Your task to perform on an android device: turn on airplane mode Image 0: 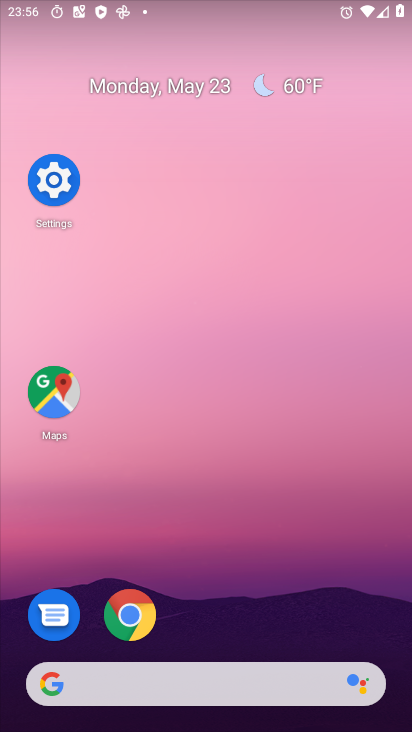
Step 0: drag from (203, 604) to (258, 34)
Your task to perform on an android device: turn on airplane mode Image 1: 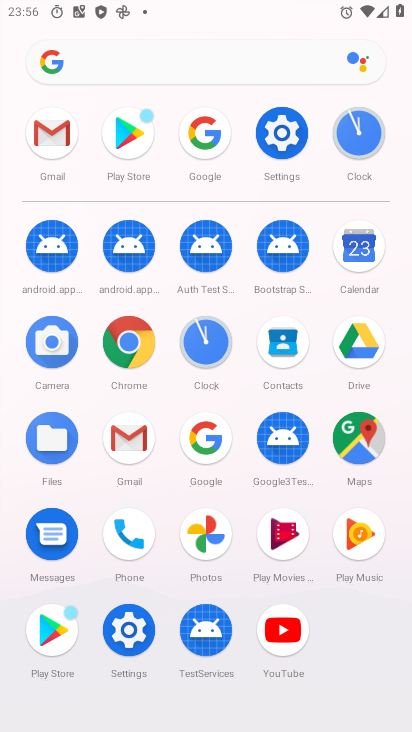
Step 1: click (277, 136)
Your task to perform on an android device: turn on airplane mode Image 2: 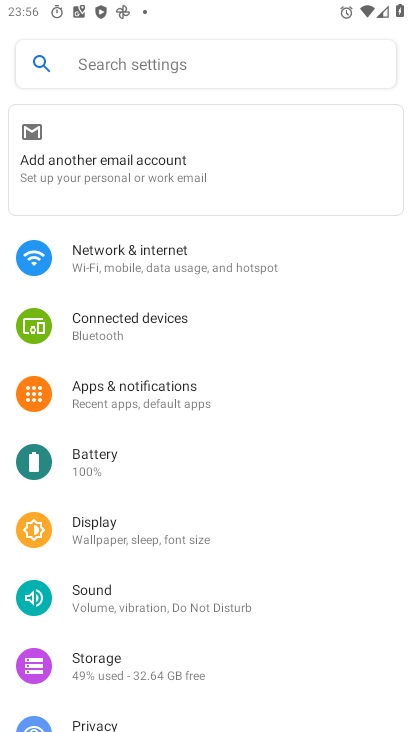
Step 2: click (140, 263)
Your task to perform on an android device: turn on airplane mode Image 3: 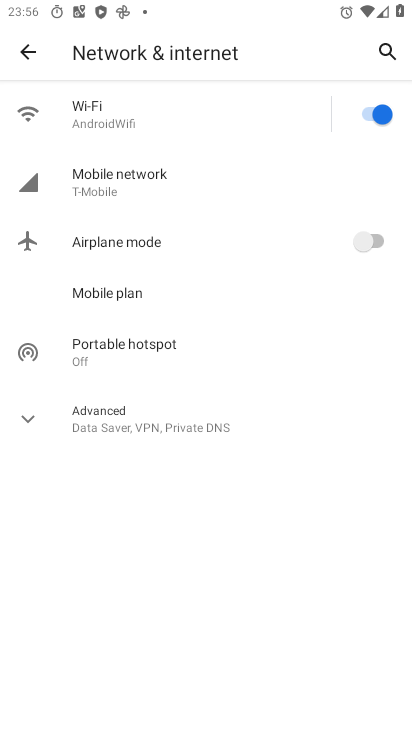
Step 3: click (363, 243)
Your task to perform on an android device: turn on airplane mode Image 4: 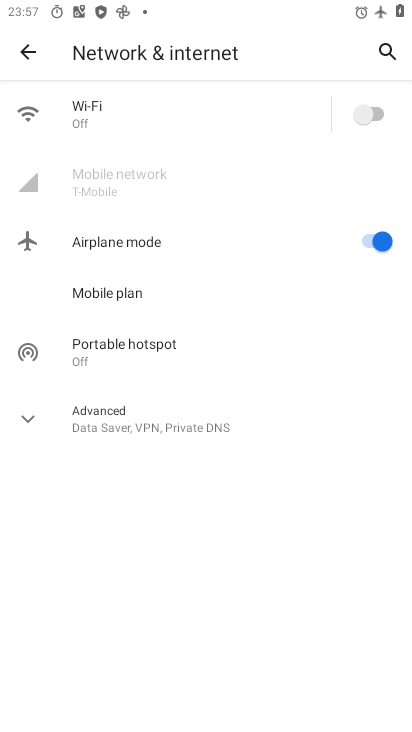
Step 4: task complete